Your task to perform on an android device: Turn off the flashlight Image 0: 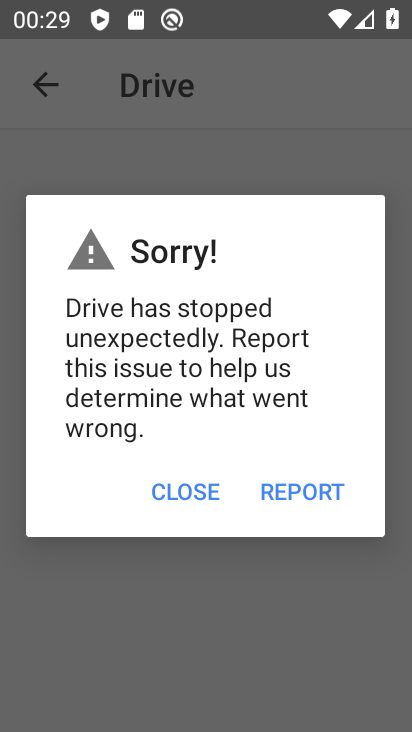
Step 0: press home button
Your task to perform on an android device: Turn off the flashlight Image 1: 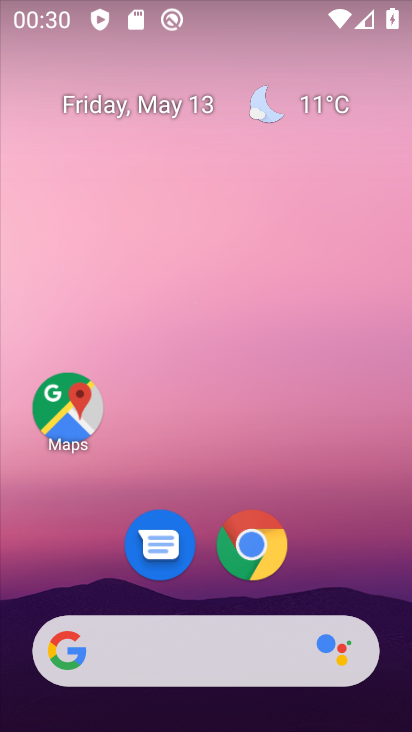
Step 1: drag from (345, 570) to (288, 212)
Your task to perform on an android device: Turn off the flashlight Image 2: 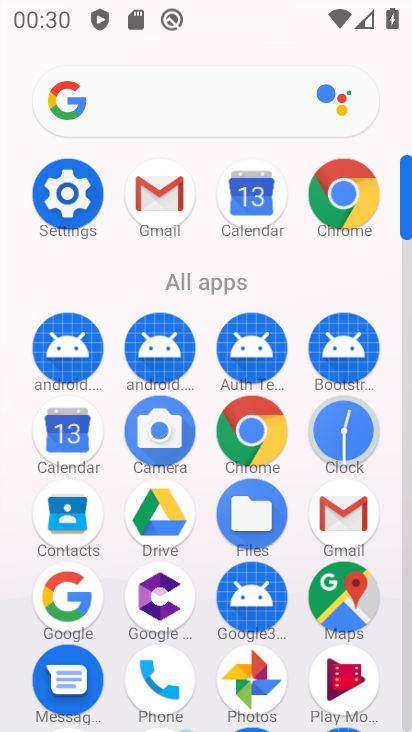
Step 2: click (70, 194)
Your task to perform on an android device: Turn off the flashlight Image 3: 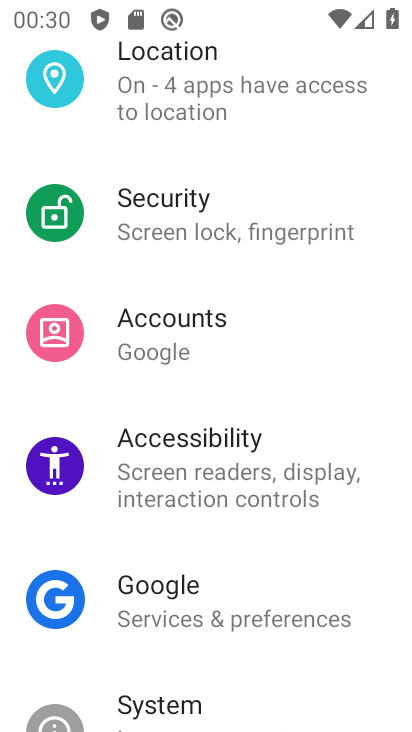
Step 3: drag from (246, 112) to (225, 594)
Your task to perform on an android device: Turn off the flashlight Image 4: 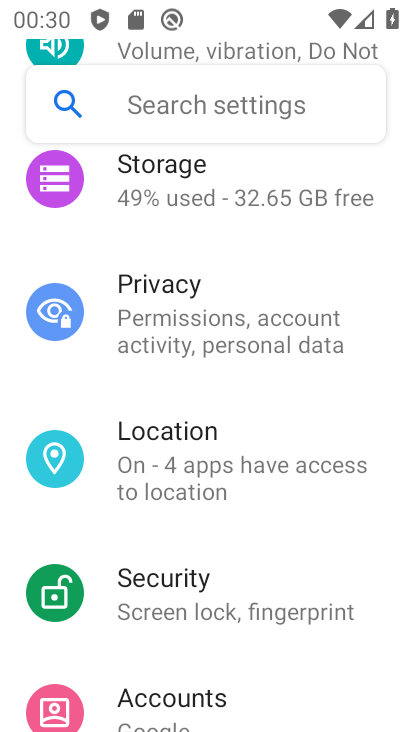
Step 4: click (226, 112)
Your task to perform on an android device: Turn off the flashlight Image 5: 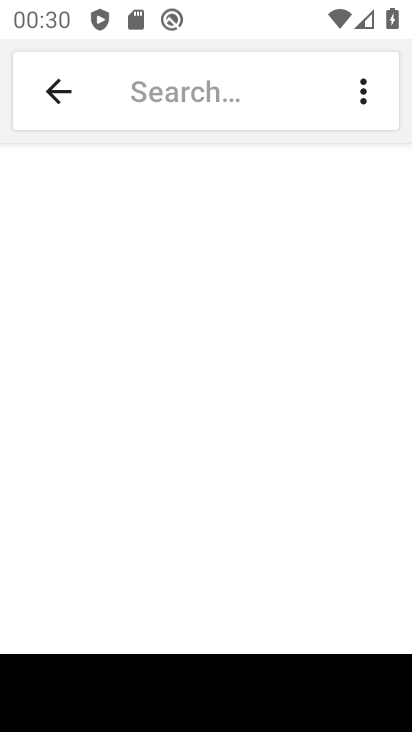
Step 5: type "Flashlight"
Your task to perform on an android device: Turn off the flashlight Image 6: 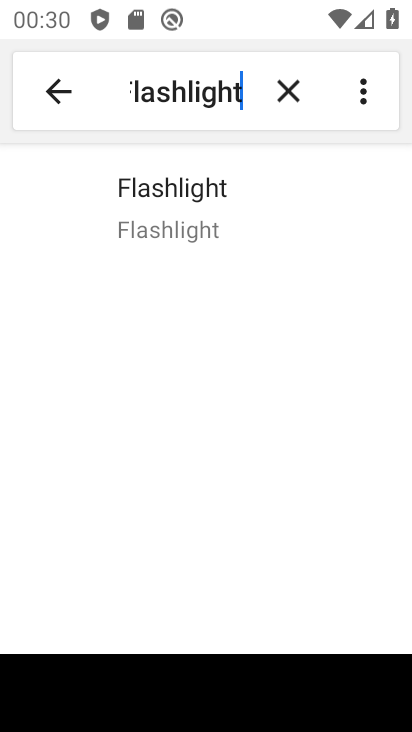
Step 6: click (130, 213)
Your task to perform on an android device: Turn off the flashlight Image 7: 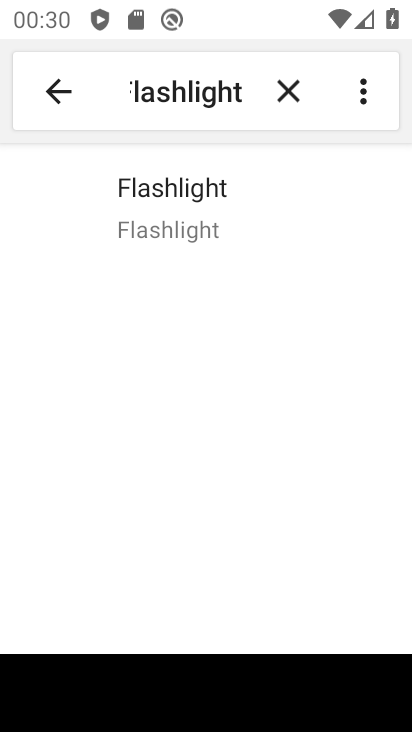
Step 7: click (222, 235)
Your task to perform on an android device: Turn off the flashlight Image 8: 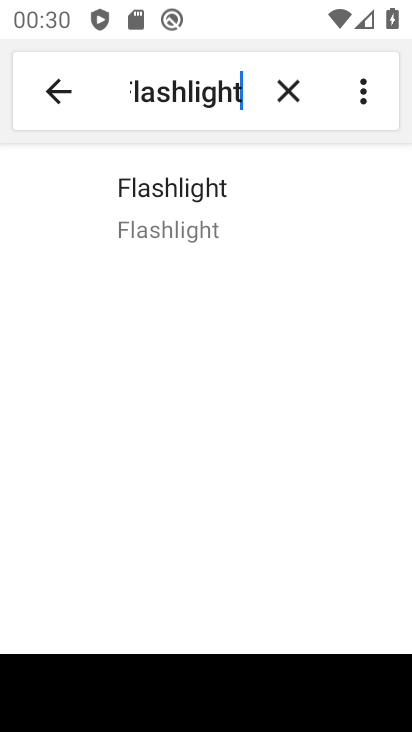
Step 8: task complete